Your task to perform on an android device: Open Maps and search for coffee Image 0: 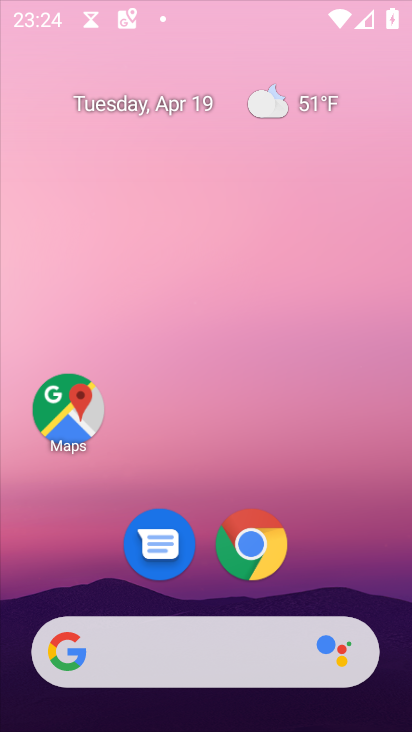
Step 0: drag from (345, 500) to (362, 98)
Your task to perform on an android device: Open Maps and search for coffee Image 1: 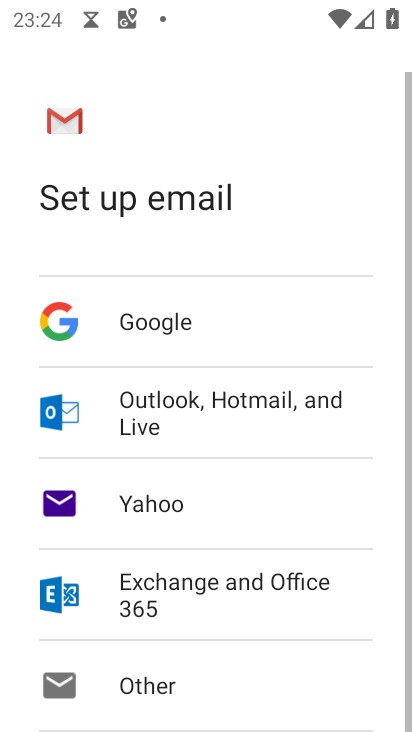
Step 1: press home button
Your task to perform on an android device: Open Maps and search for coffee Image 2: 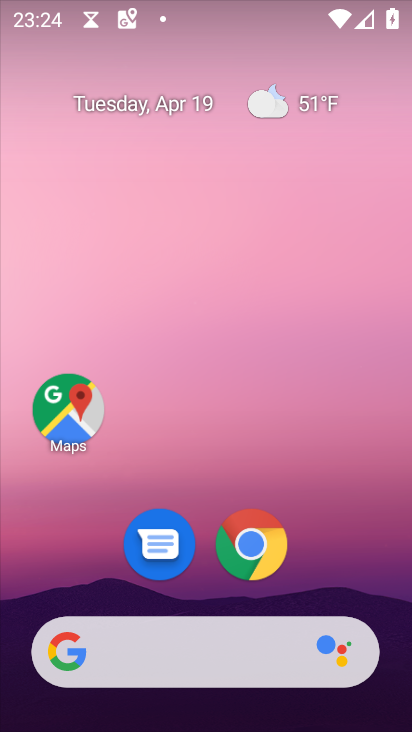
Step 2: click (65, 415)
Your task to perform on an android device: Open Maps and search for coffee Image 3: 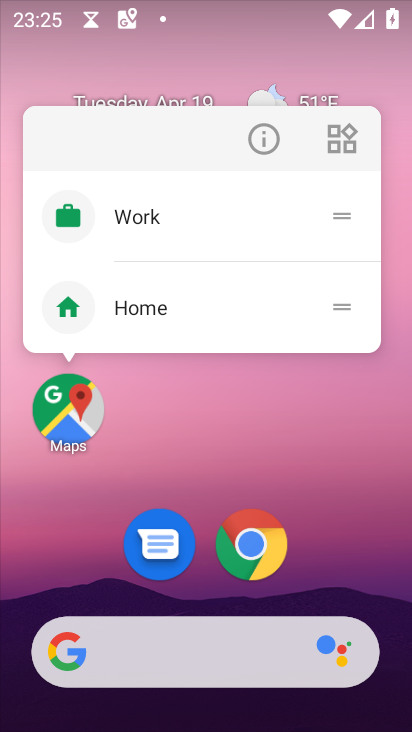
Step 3: click (71, 410)
Your task to perform on an android device: Open Maps and search for coffee Image 4: 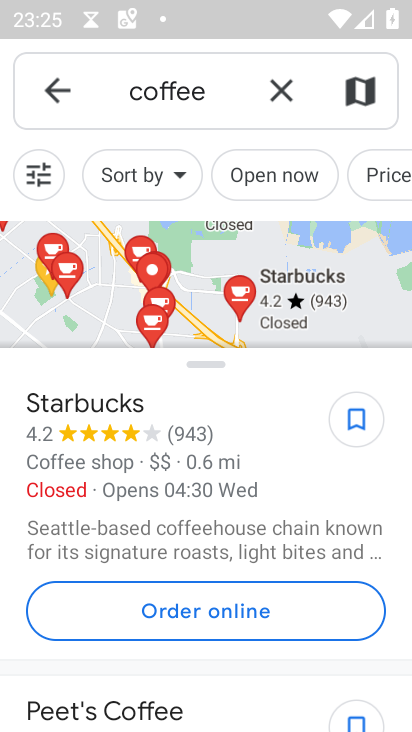
Step 4: task complete